Your task to perform on an android device: change keyboard looks Image 0: 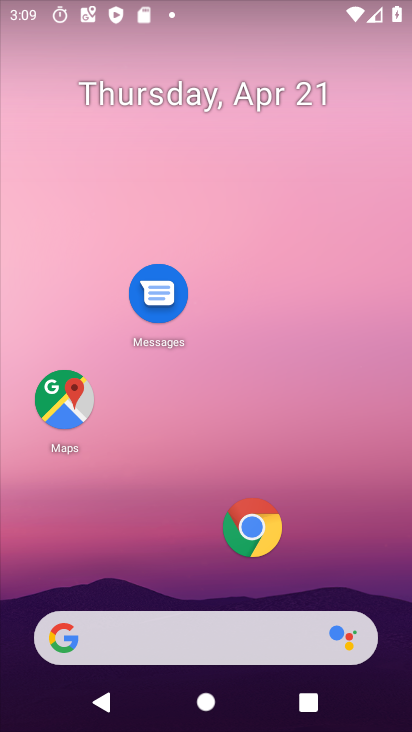
Step 0: drag from (216, 612) to (250, 257)
Your task to perform on an android device: change keyboard looks Image 1: 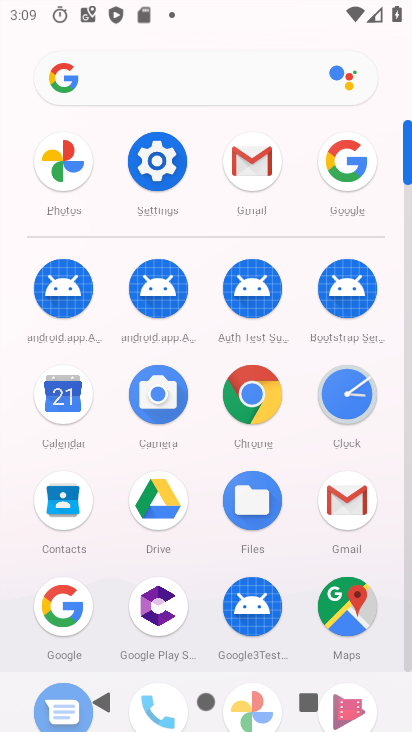
Step 1: click (152, 160)
Your task to perform on an android device: change keyboard looks Image 2: 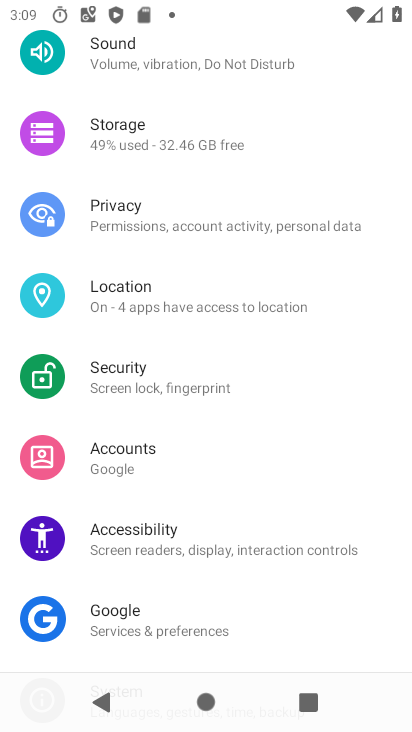
Step 2: click (217, 347)
Your task to perform on an android device: change keyboard looks Image 3: 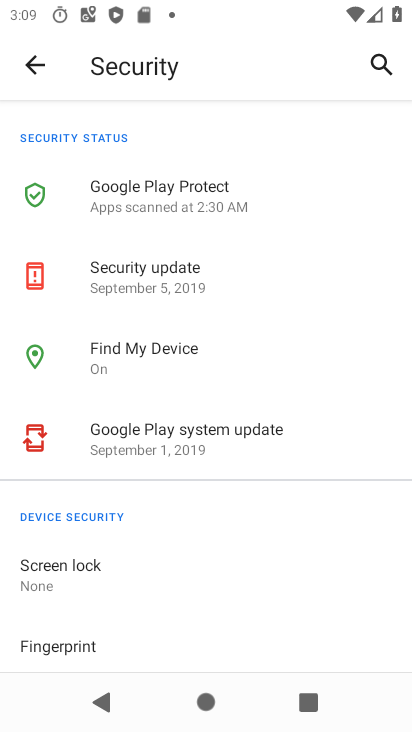
Step 3: click (35, 74)
Your task to perform on an android device: change keyboard looks Image 4: 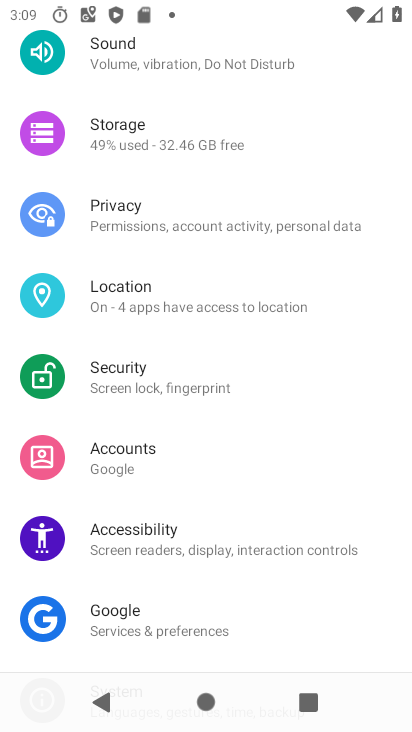
Step 4: drag from (179, 496) to (214, 313)
Your task to perform on an android device: change keyboard looks Image 5: 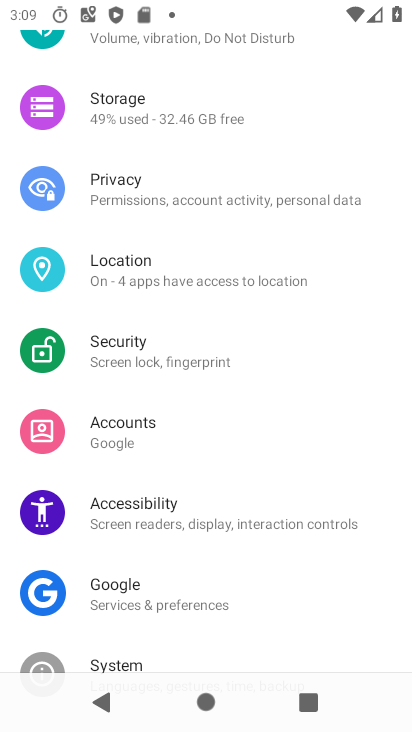
Step 5: click (117, 661)
Your task to perform on an android device: change keyboard looks Image 6: 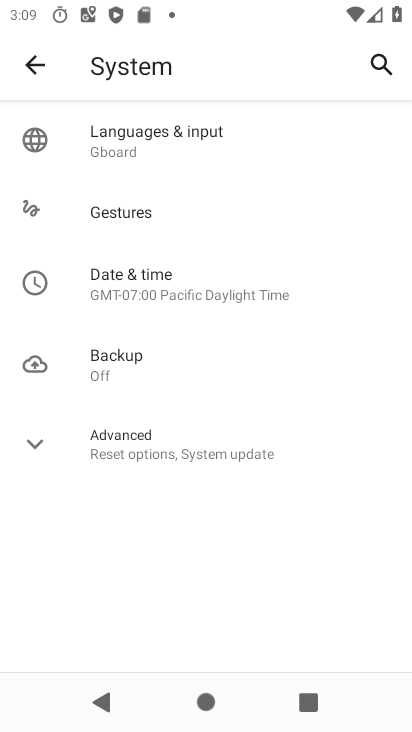
Step 6: click (109, 133)
Your task to perform on an android device: change keyboard looks Image 7: 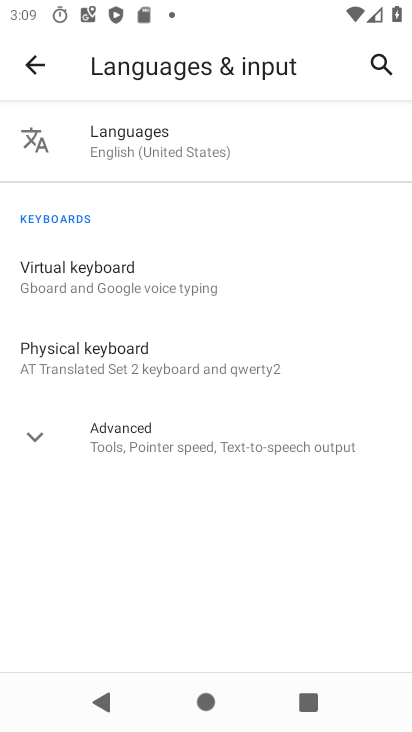
Step 7: click (111, 271)
Your task to perform on an android device: change keyboard looks Image 8: 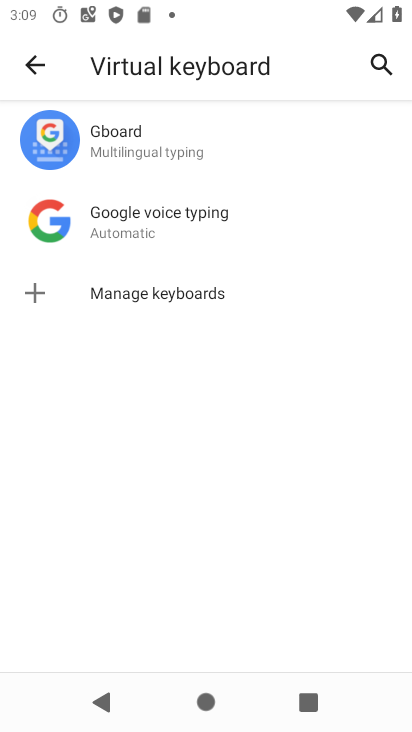
Step 8: click (113, 142)
Your task to perform on an android device: change keyboard looks Image 9: 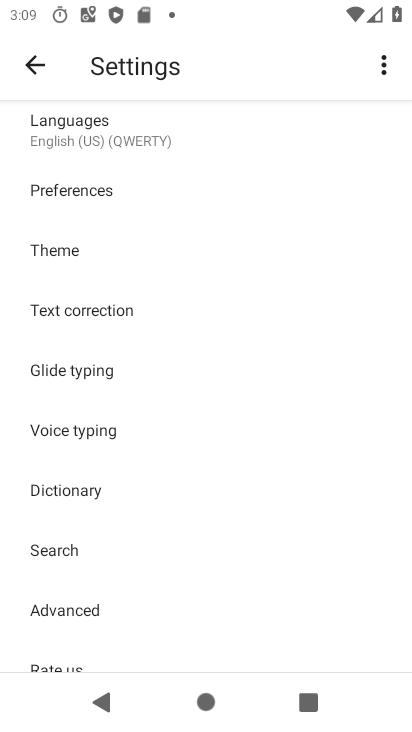
Step 9: click (65, 235)
Your task to perform on an android device: change keyboard looks Image 10: 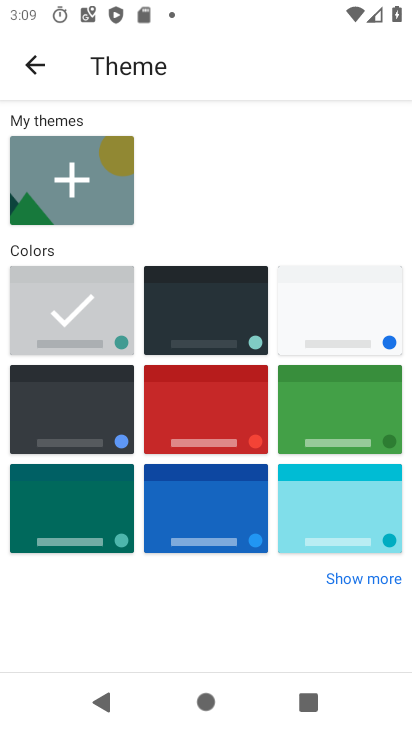
Step 10: click (64, 249)
Your task to perform on an android device: change keyboard looks Image 11: 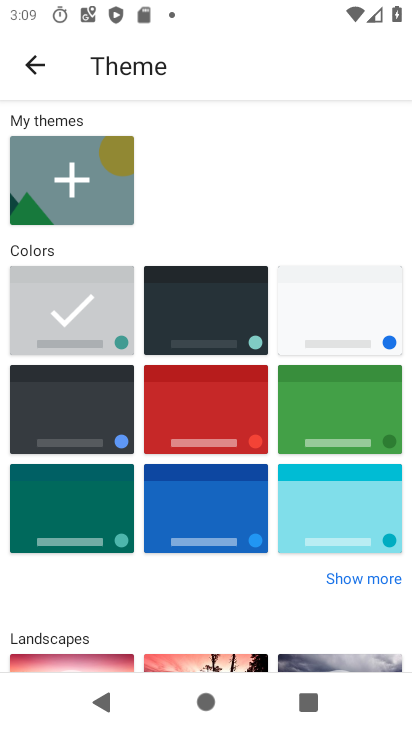
Step 11: click (182, 314)
Your task to perform on an android device: change keyboard looks Image 12: 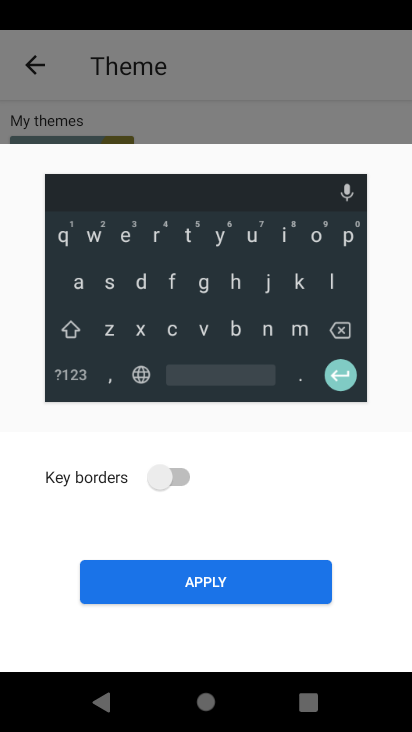
Step 12: click (215, 585)
Your task to perform on an android device: change keyboard looks Image 13: 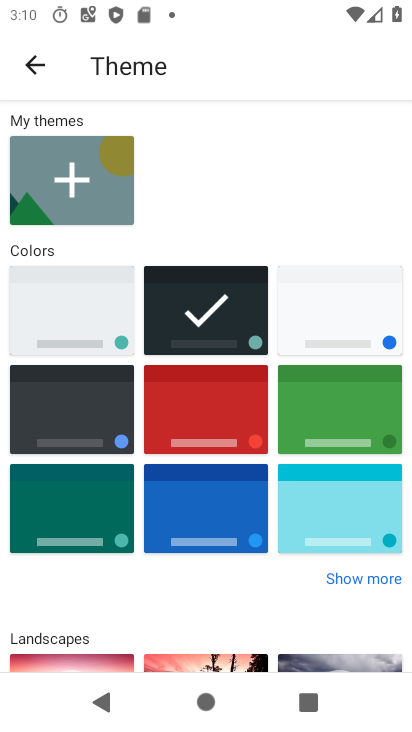
Step 13: task complete